Your task to perform on an android device: toggle improve location accuracy Image 0: 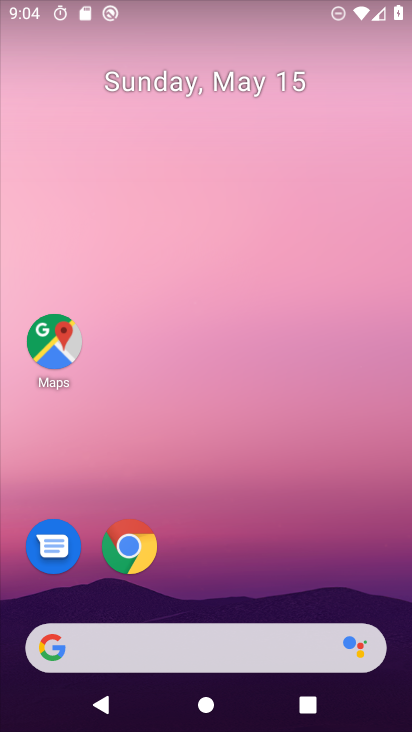
Step 0: drag from (232, 541) to (193, 31)
Your task to perform on an android device: toggle improve location accuracy Image 1: 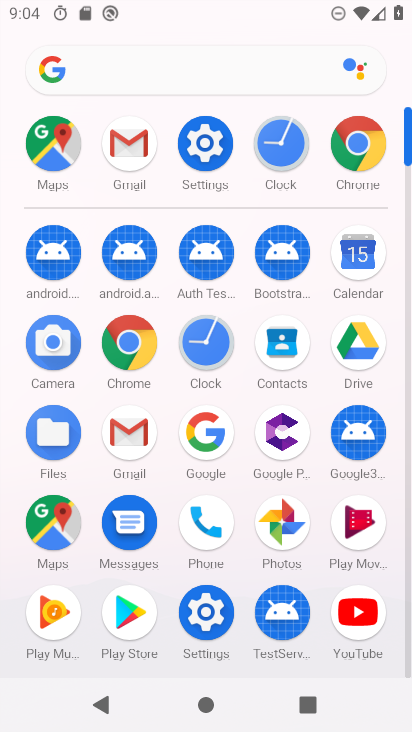
Step 1: click (205, 140)
Your task to perform on an android device: toggle improve location accuracy Image 2: 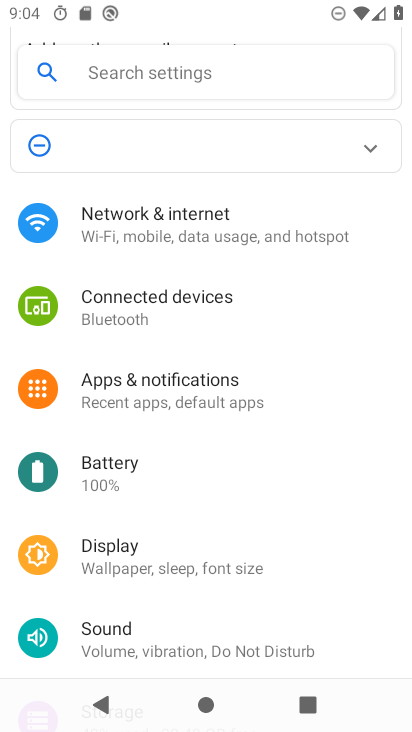
Step 2: drag from (242, 484) to (246, 163)
Your task to perform on an android device: toggle improve location accuracy Image 3: 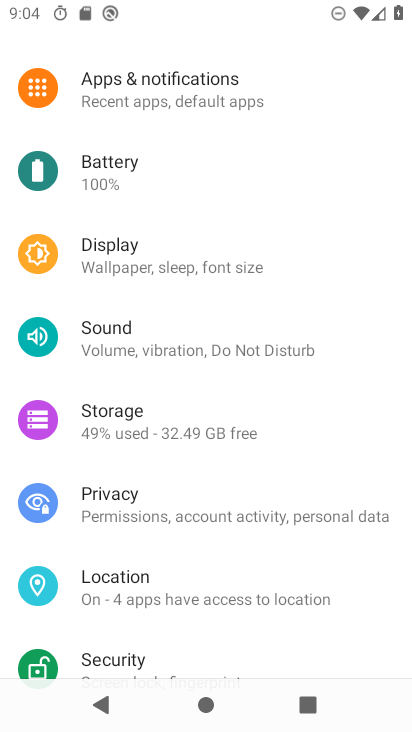
Step 3: click (199, 578)
Your task to perform on an android device: toggle improve location accuracy Image 4: 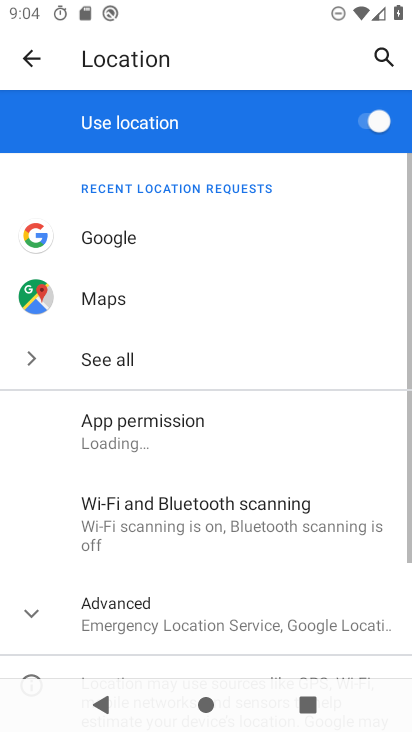
Step 4: drag from (204, 562) to (216, 282)
Your task to perform on an android device: toggle improve location accuracy Image 5: 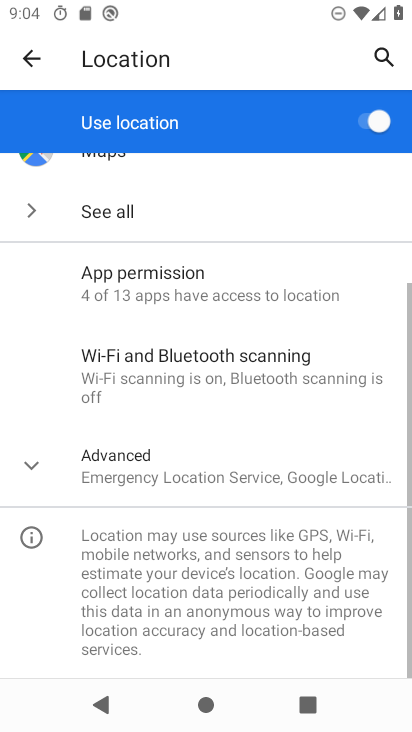
Step 5: click (29, 464)
Your task to perform on an android device: toggle improve location accuracy Image 6: 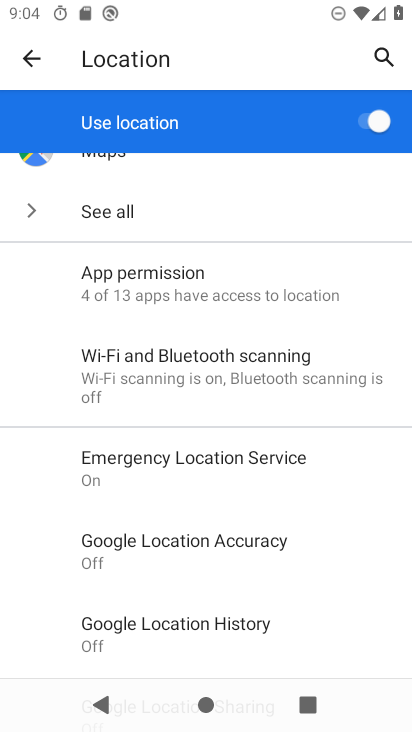
Step 6: click (147, 553)
Your task to perform on an android device: toggle improve location accuracy Image 7: 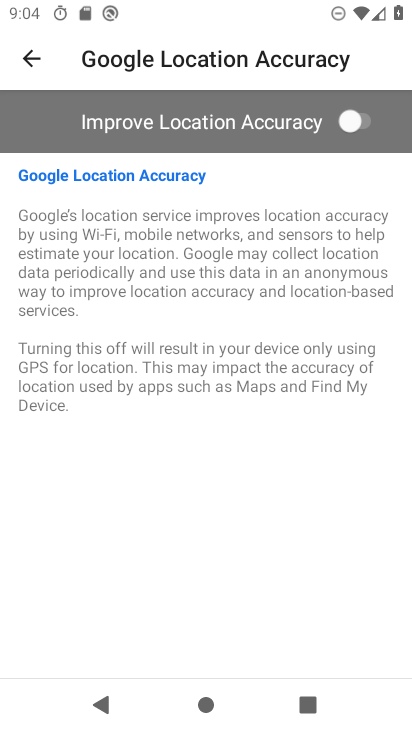
Step 7: click (349, 110)
Your task to perform on an android device: toggle improve location accuracy Image 8: 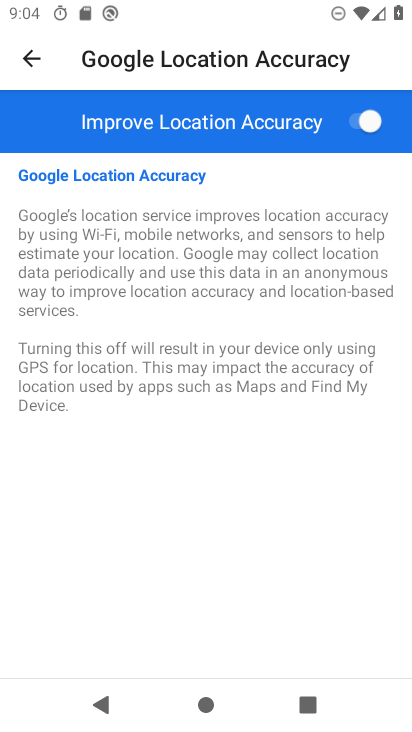
Step 8: task complete